Your task to perform on an android device: Open the calendar app, open the side menu, and click the "Day" option Image 0: 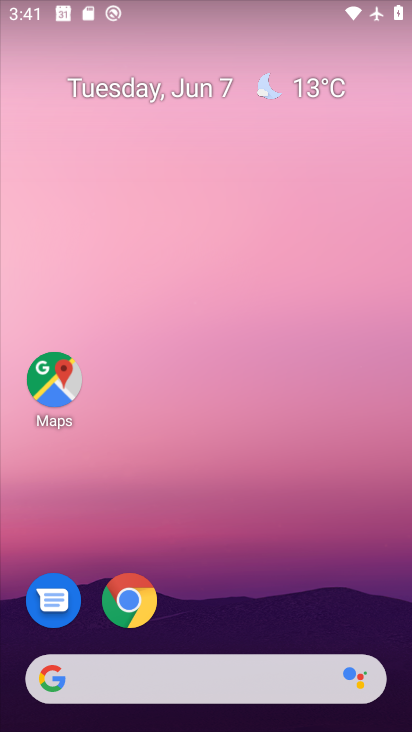
Step 0: drag from (331, 605) to (319, 138)
Your task to perform on an android device: Open the calendar app, open the side menu, and click the "Day" option Image 1: 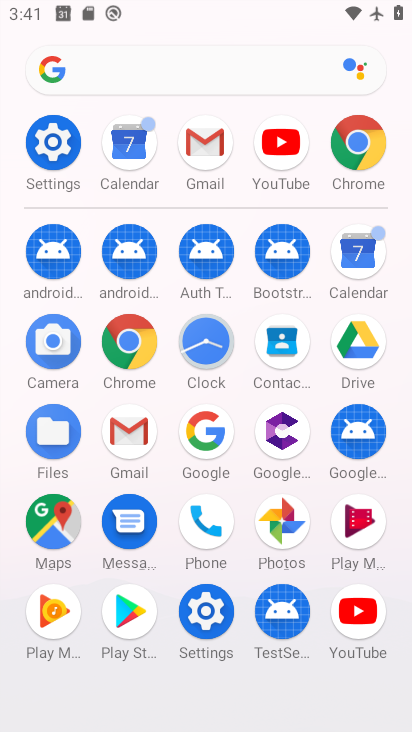
Step 1: click (364, 252)
Your task to perform on an android device: Open the calendar app, open the side menu, and click the "Day" option Image 2: 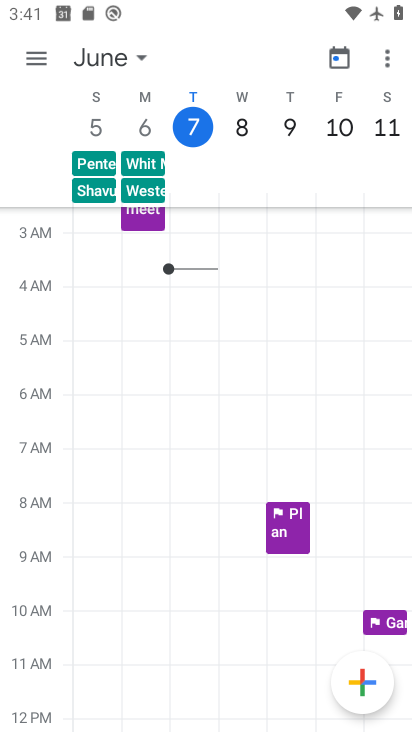
Step 2: click (44, 57)
Your task to perform on an android device: Open the calendar app, open the side menu, and click the "Day" option Image 3: 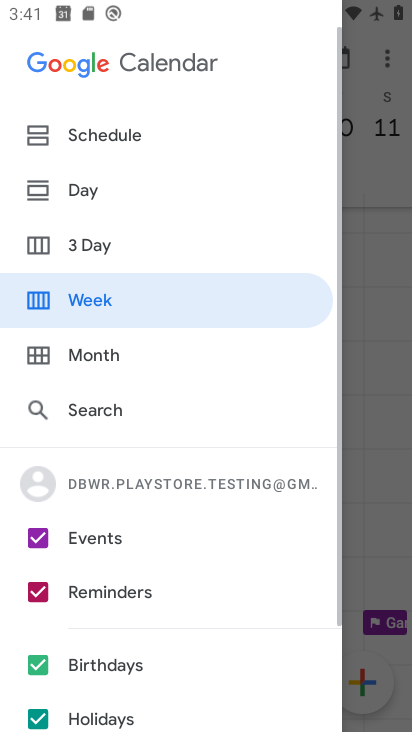
Step 3: click (70, 189)
Your task to perform on an android device: Open the calendar app, open the side menu, and click the "Day" option Image 4: 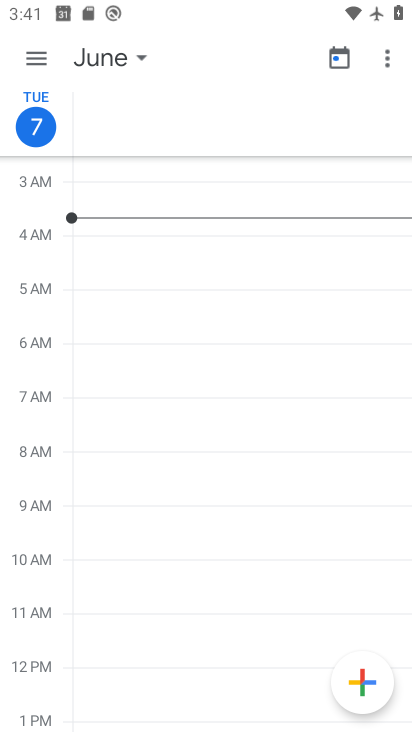
Step 4: task complete